Your task to perform on an android device: Open the stopwatch Image 0: 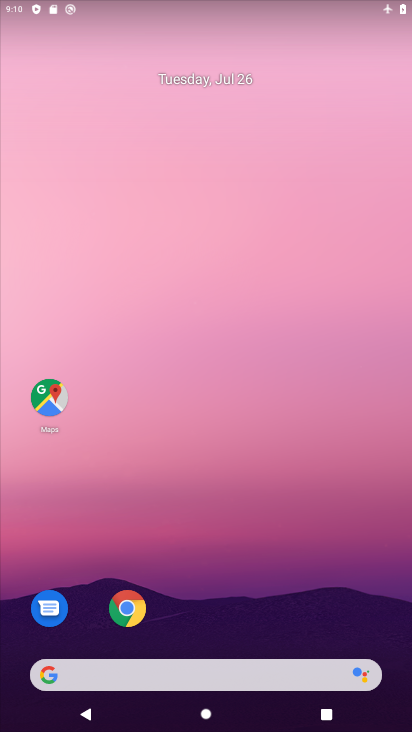
Step 0: drag from (214, 614) to (213, 174)
Your task to perform on an android device: Open the stopwatch Image 1: 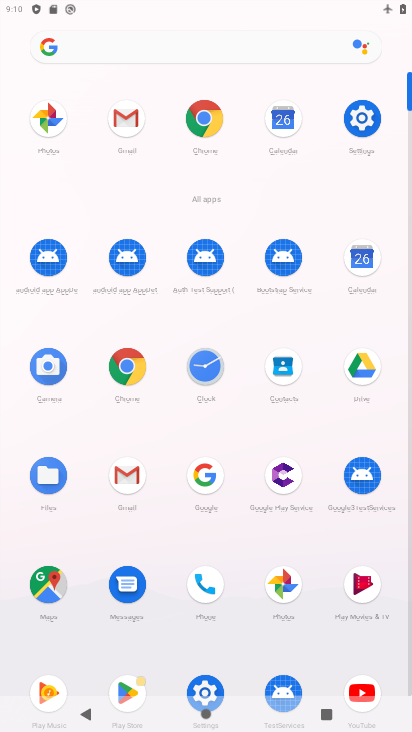
Step 1: click (211, 368)
Your task to perform on an android device: Open the stopwatch Image 2: 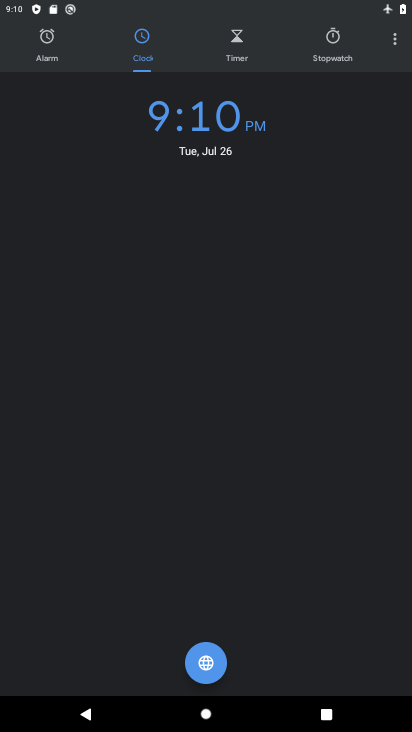
Step 2: click (322, 35)
Your task to perform on an android device: Open the stopwatch Image 3: 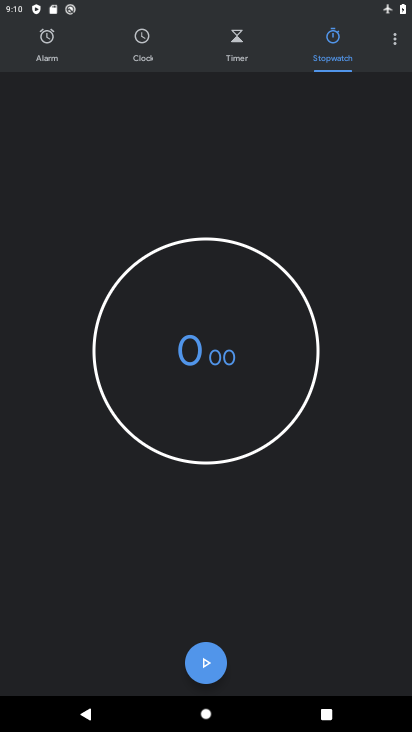
Step 3: task complete